Your task to perform on an android device: stop showing notifications on the lock screen Image 0: 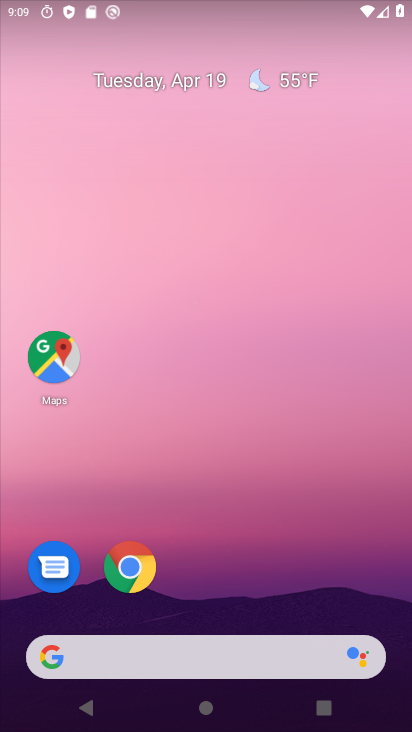
Step 0: drag from (207, 699) to (171, 80)
Your task to perform on an android device: stop showing notifications on the lock screen Image 1: 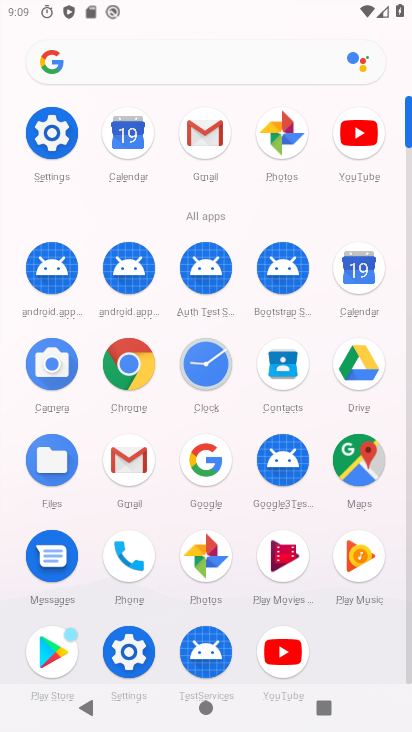
Step 1: click (47, 137)
Your task to perform on an android device: stop showing notifications on the lock screen Image 2: 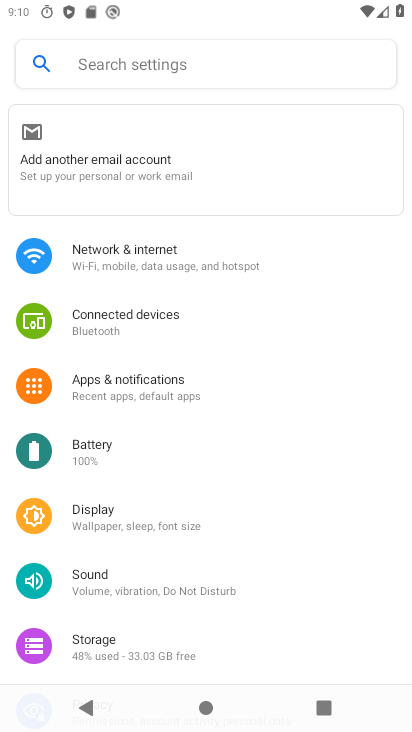
Step 2: click (134, 380)
Your task to perform on an android device: stop showing notifications on the lock screen Image 3: 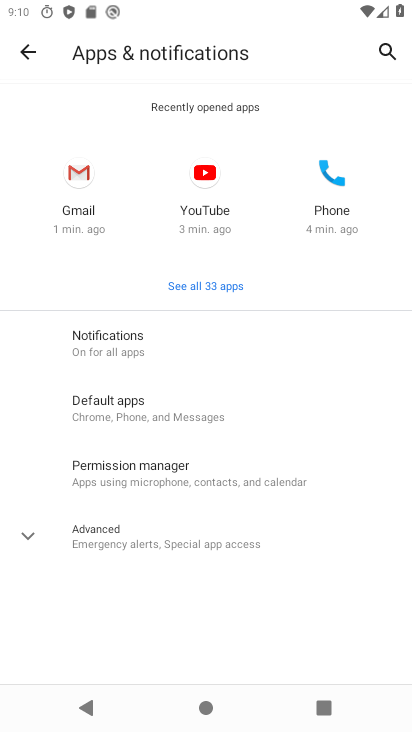
Step 3: click (115, 340)
Your task to perform on an android device: stop showing notifications on the lock screen Image 4: 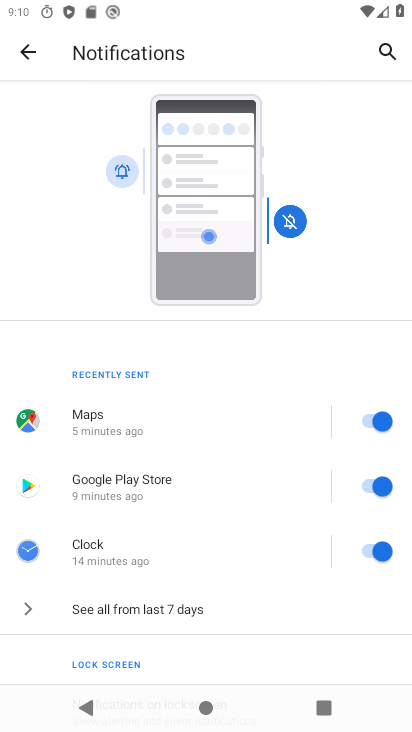
Step 4: drag from (224, 655) to (183, 285)
Your task to perform on an android device: stop showing notifications on the lock screen Image 5: 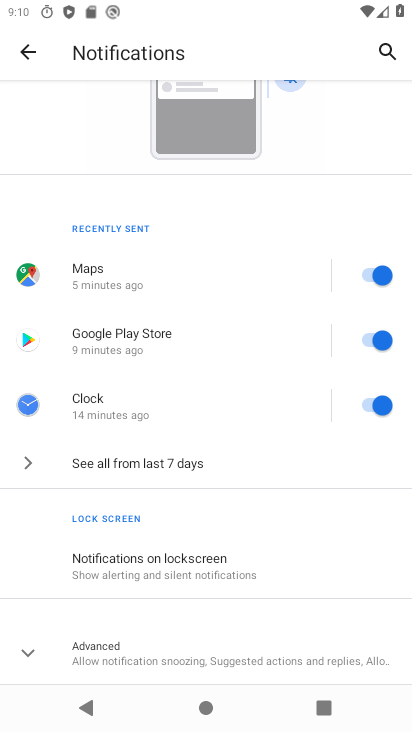
Step 5: click (144, 568)
Your task to perform on an android device: stop showing notifications on the lock screen Image 6: 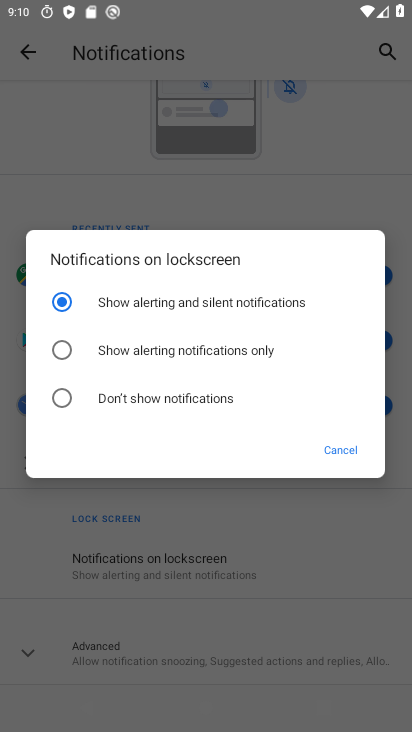
Step 6: click (57, 395)
Your task to perform on an android device: stop showing notifications on the lock screen Image 7: 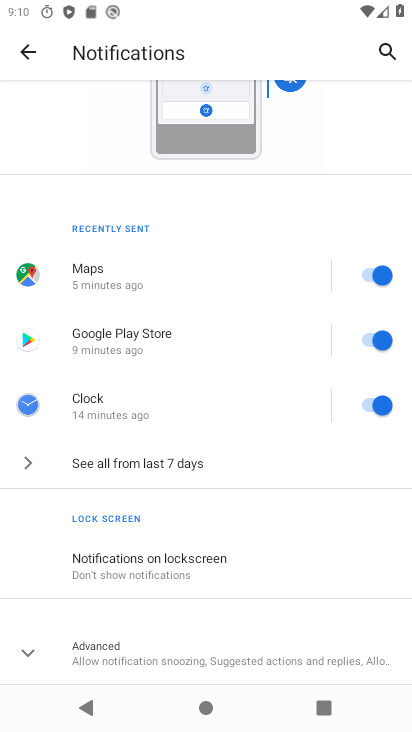
Step 7: task complete